Your task to perform on an android device: Clear the cart on amazon.com. Search for "sony triple a" on amazon.com, select the first entry, add it to the cart, then select checkout. Image 0: 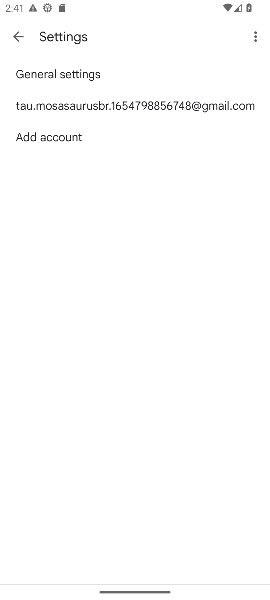
Step 0: drag from (170, 562) to (160, 199)
Your task to perform on an android device: Clear the cart on amazon.com. Search for "sony triple a" on amazon.com, select the first entry, add it to the cart, then select checkout. Image 1: 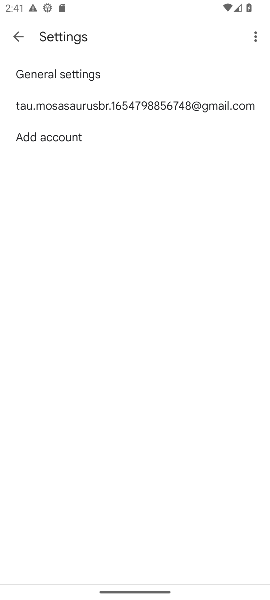
Step 1: drag from (142, 595) to (142, 217)
Your task to perform on an android device: Clear the cart on amazon.com. Search for "sony triple a" on amazon.com, select the first entry, add it to the cart, then select checkout. Image 2: 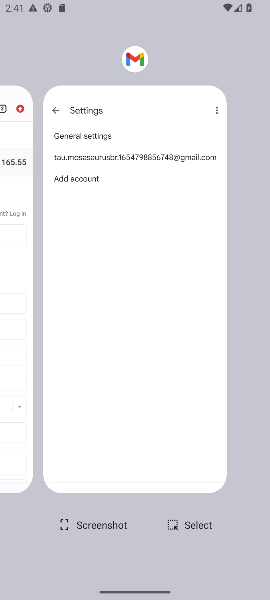
Step 2: press home button
Your task to perform on an android device: Clear the cart on amazon.com. Search for "sony triple a" on amazon.com, select the first entry, add it to the cart, then select checkout. Image 3: 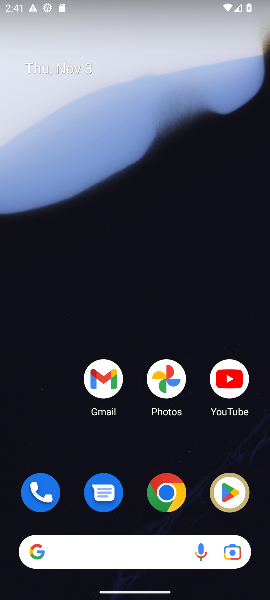
Step 3: click (163, 496)
Your task to perform on an android device: Clear the cart on amazon.com. Search for "sony triple a" on amazon.com, select the first entry, add it to the cart, then select checkout. Image 4: 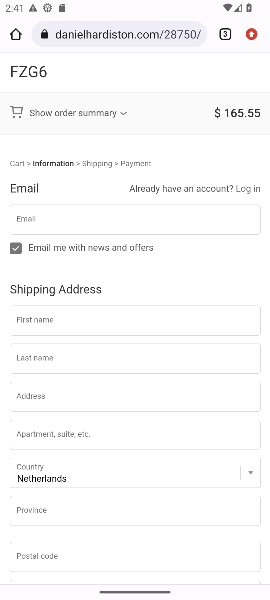
Step 4: click (101, 35)
Your task to perform on an android device: Clear the cart on amazon.com. Search for "sony triple a" on amazon.com, select the first entry, add it to the cart, then select checkout. Image 5: 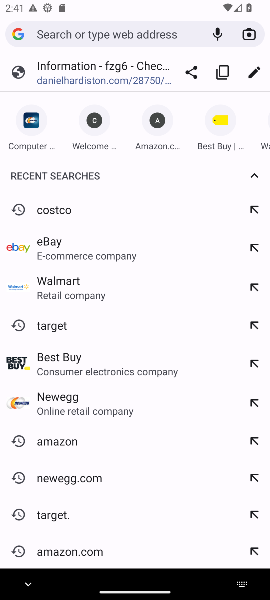
Step 5: type " amazon.com"
Your task to perform on an android device: Clear the cart on amazon.com. Search for "sony triple a" on amazon.com, select the first entry, add it to the cart, then select checkout. Image 6: 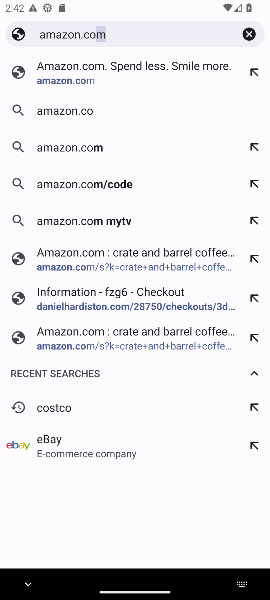
Step 6: type ""
Your task to perform on an android device: Clear the cart on amazon.com. Search for "sony triple a" on amazon.com, select the first entry, add it to the cart, then select checkout. Image 7: 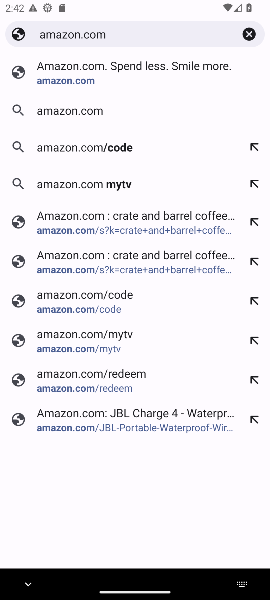
Step 7: click (164, 60)
Your task to perform on an android device: Clear the cart on amazon.com. Search for "sony triple a" on amazon.com, select the first entry, add it to the cart, then select checkout. Image 8: 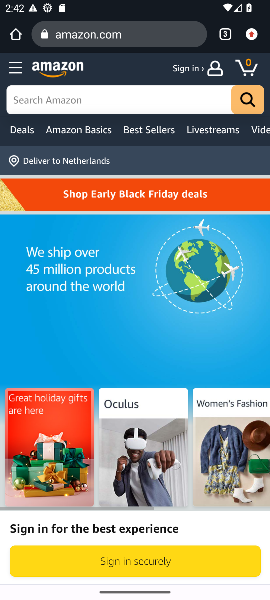
Step 8: click (99, 95)
Your task to perform on an android device: Clear the cart on amazon.com. Search for "sony triple a" on amazon.com, select the first entry, add it to the cart, then select checkout. Image 9: 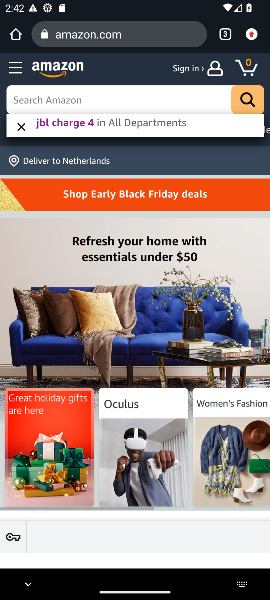
Step 9: type "sony triple a"
Your task to perform on an android device: Clear the cart on amazon.com. Search for "sony triple a" on amazon.com, select the first entry, add it to the cart, then select checkout. Image 10: 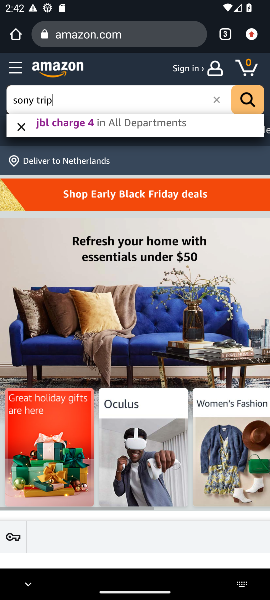
Step 10: type ""
Your task to perform on an android device: Clear the cart on amazon.com. Search for "sony triple a" on amazon.com, select the first entry, add it to the cart, then select checkout. Image 11: 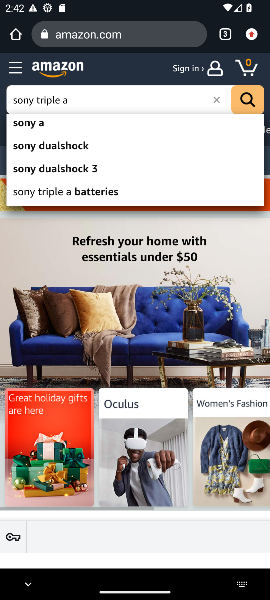
Step 11: click (82, 197)
Your task to perform on an android device: Clear the cart on amazon.com. Search for "sony triple a" on amazon.com, select the first entry, add it to the cart, then select checkout. Image 12: 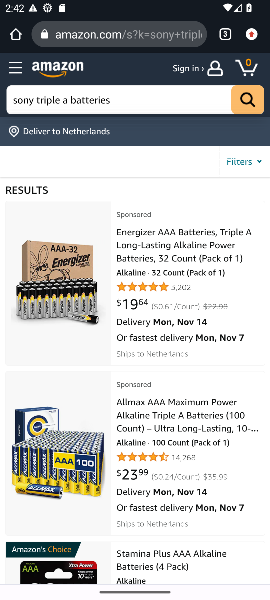
Step 12: drag from (184, 525) to (175, 294)
Your task to perform on an android device: Clear the cart on amazon.com. Search for "sony triple a" on amazon.com, select the first entry, add it to the cart, then select checkout. Image 13: 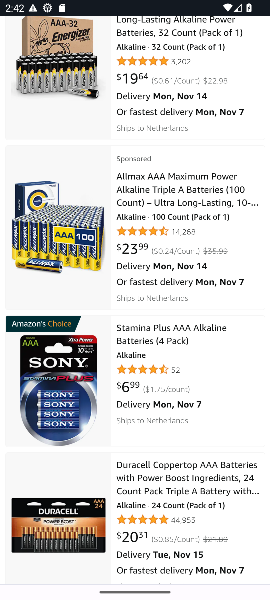
Step 13: drag from (156, 496) to (165, 250)
Your task to perform on an android device: Clear the cart on amazon.com. Search for "sony triple a" on amazon.com, select the first entry, add it to the cart, then select checkout. Image 14: 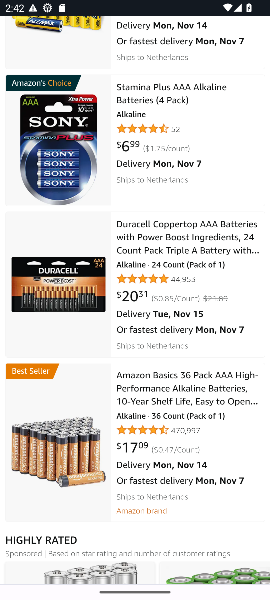
Step 14: click (188, 130)
Your task to perform on an android device: Clear the cart on amazon.com. Search for "sony triple a" on amazon.com, select the first entry, add it to the cart, then select checkout. Image 15: 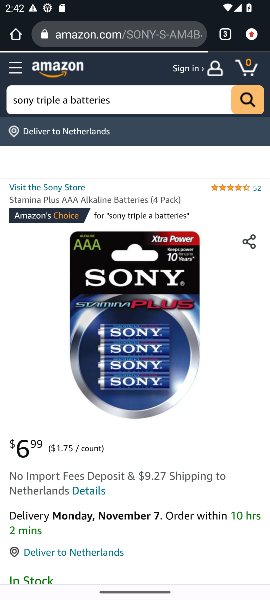
Step 15: drag from (146, 377) to (142, 266)
Your task to perform on an android device: Clear the cart on amazon.com. Search for "sony triple a" on amazon.com, select the first entry, add it to the cart, then select checkout. Image 16: 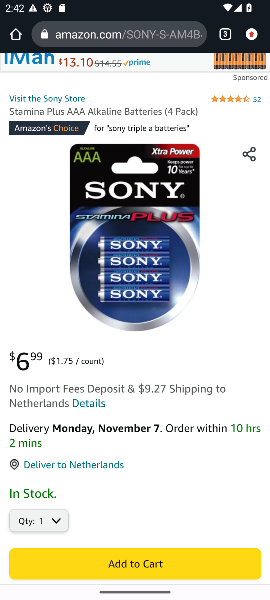
Step 16: click (92, 560)
Your task to perform on an android device: Clear the cart on amazon.com. Search for "sony triple a" on amazon.com, select the first entry, add it to the cart, then select checkout. Image 17: 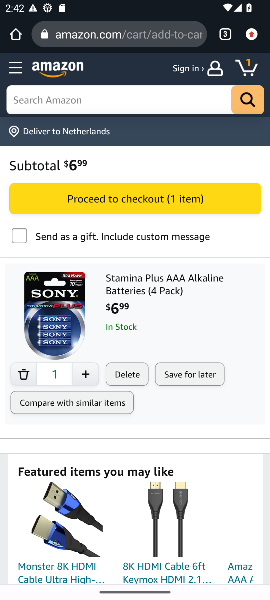
Step 17: click (144, 201)
Your task to perform on an android device: Clear the cart on amazon.com. Search for "sony triple a" on amazon.com, select the first entry, add it to the cart, then select checkout. Image 18: 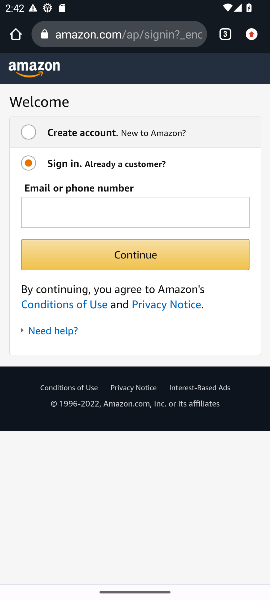
Step 18: task complete